Your task to perform on an android device: Open Maps and search for coffee Image 0: 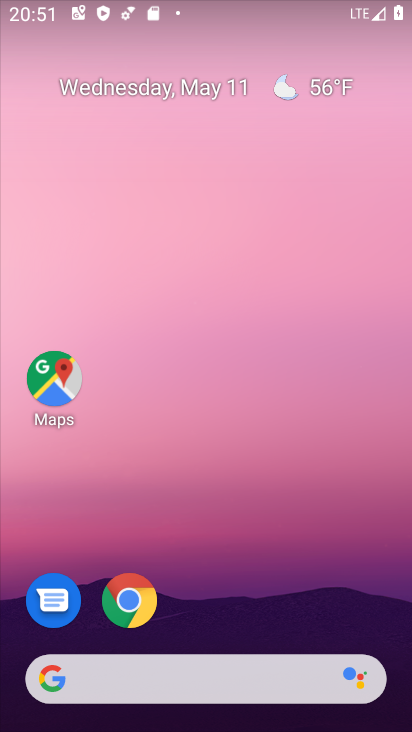
Step 0: click (53, 377)
Your task to perform on an android device: Open Maps and search for coffee Image 1: 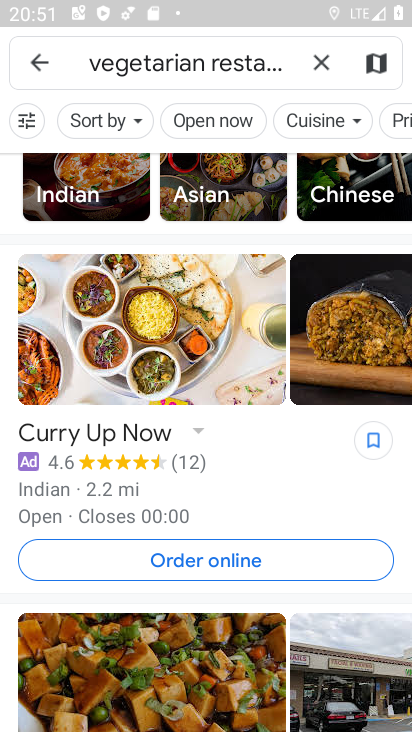
Step 1: click (322, 62)
Your task to perform on an android device: Open Maps and search for coffee Image 2: 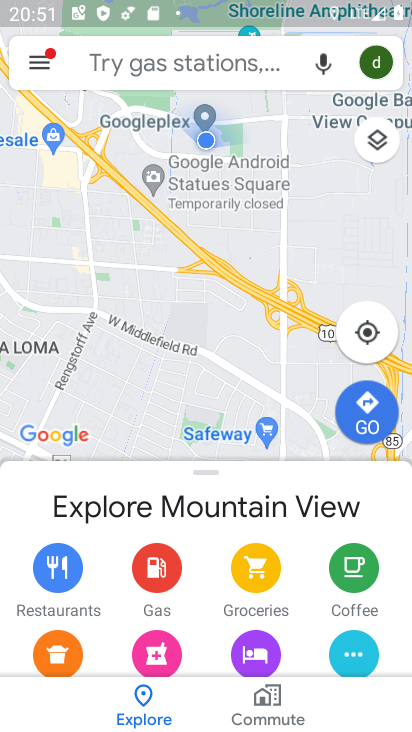
Step 2: click (244, 67)
Your task to perform on an android device: Open Maps and search for coffee Image 3: 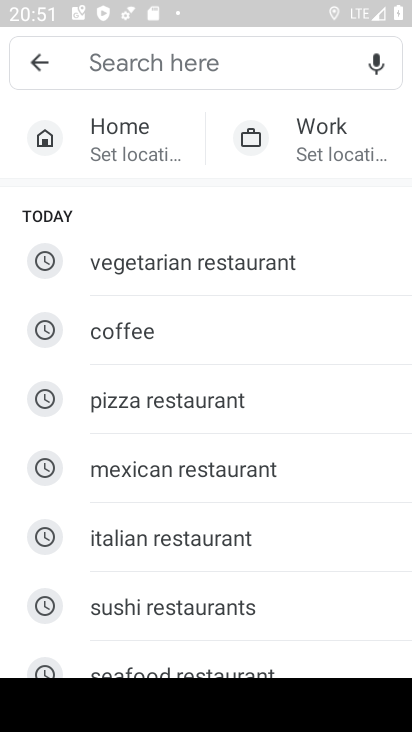
Step 3: type "coffee"
Your task to perform on an android device: Open Maps and search for coffee Image 4: 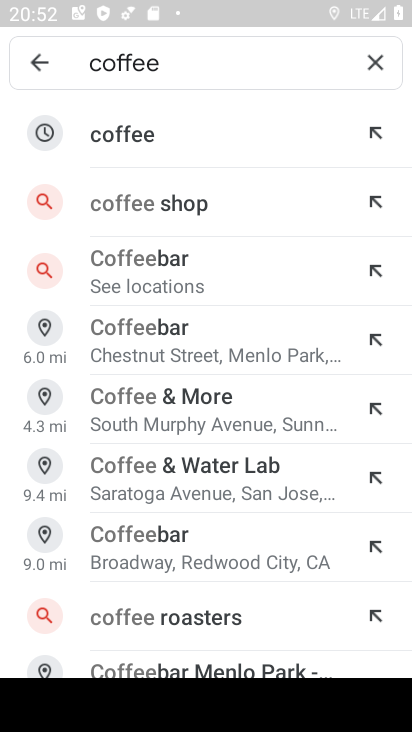
Step 4: click (139, 133)
Your task to perform on an android device: Open Maps and search for coffee Image 5: 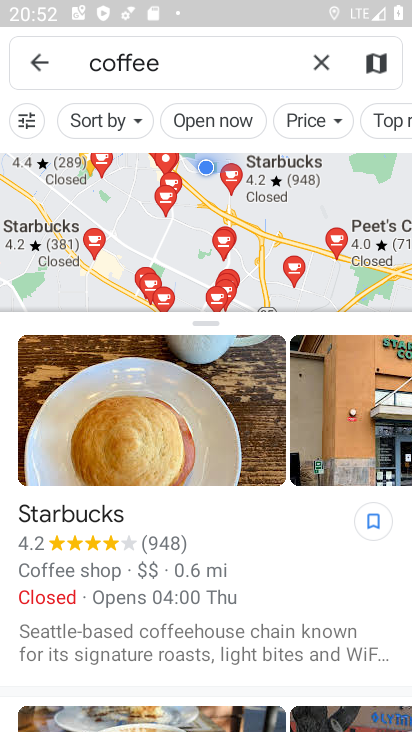
Step 5: task complete